Your task to perform on an android device: turn off javascript in the chrome app Image 0: 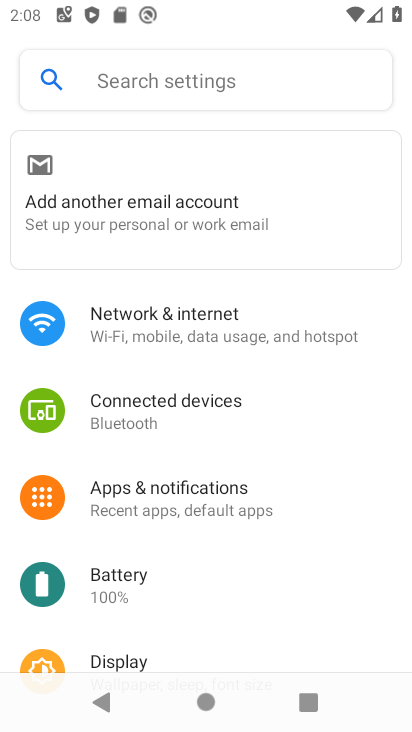
Step 0: press home button
Your task to perform on an android device: turn off javascript in the chrome app Image 1: 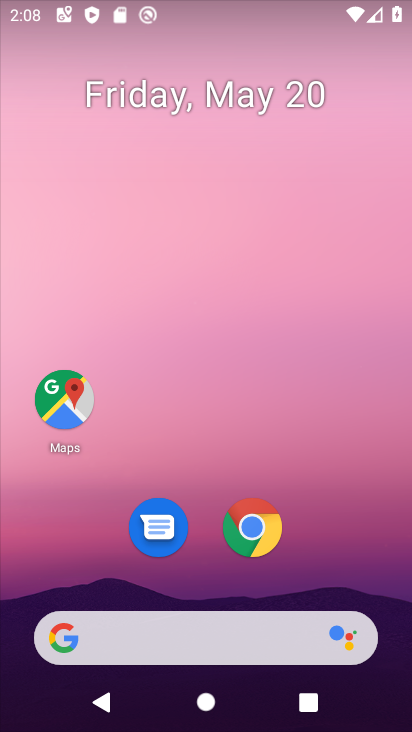
Step 1: click (264, 523)
Your task to perform on an android device: turn off javascript in the chrome app Image 2: 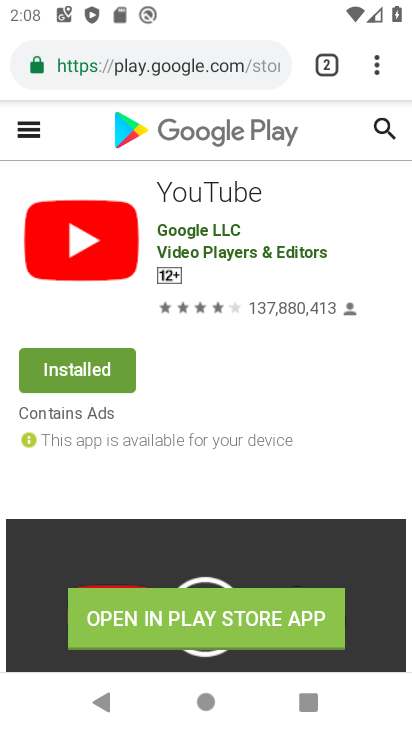
Step 2: click (380, 71)
Your task to perform on an android device: turn off javascript in the chrome app Image 3: 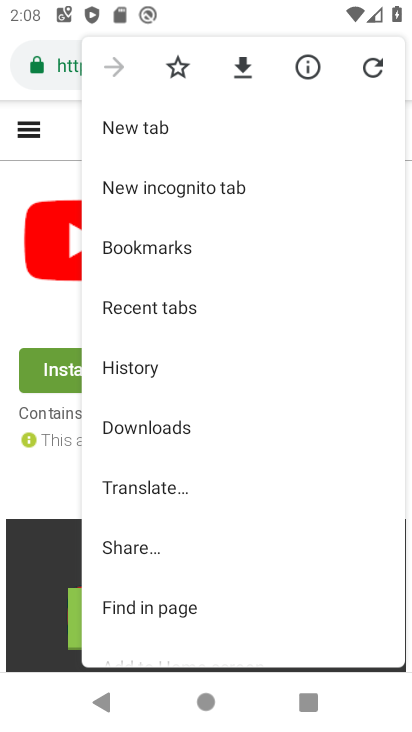
Step 3: drag from (246, 604) to (355, 151)
Your task to perform on an android device: turn off javascript in the chrome app Image 4: 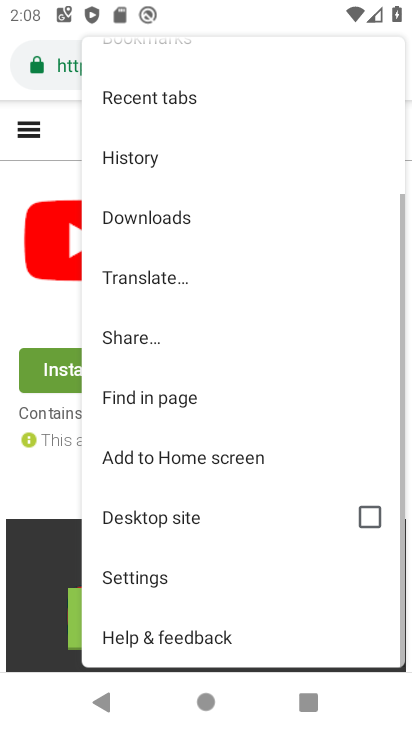
Step 4: click (170, 587)
Your task to perform on an android device: turn off javascript in the chrome app Image 5: 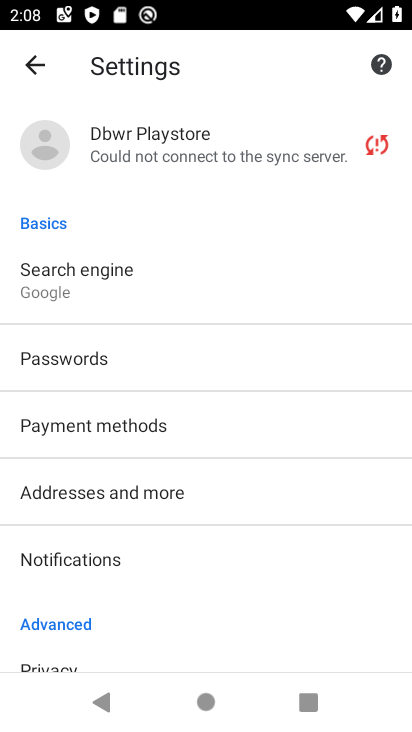
Step 5: drag from (151, 591) to (169, 85)
Your task to perform on an android device: turn off javascript in the chrome app Image 6: 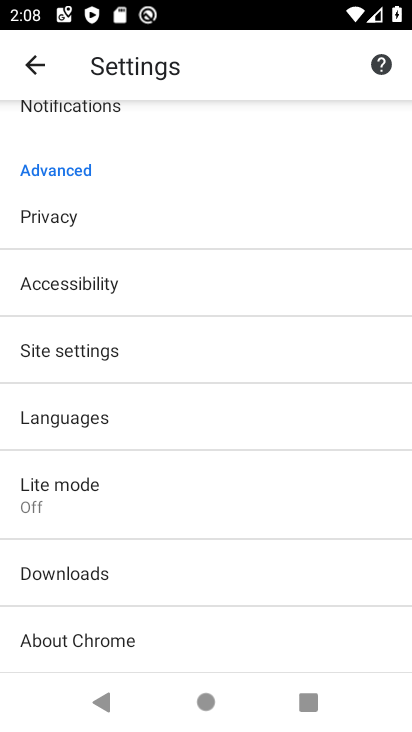
Step 6: click (117, 355)
Your task to perform on an android device: turn off javascript in the chrome app Image 7: 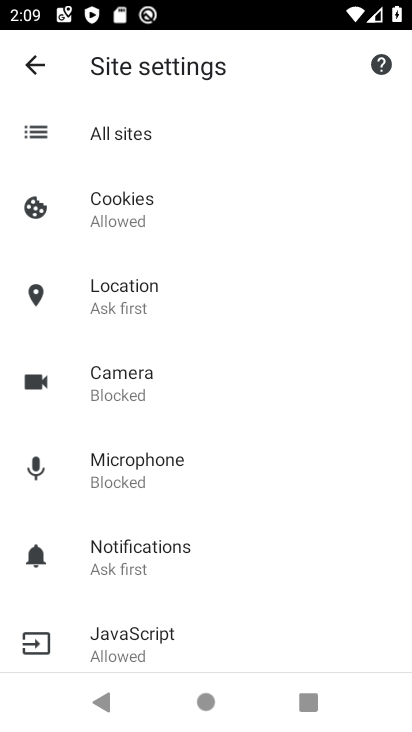
Step 7: click (168, 631)
Your task to perform on an android device: turn off javascript in the chrome app Image 8: 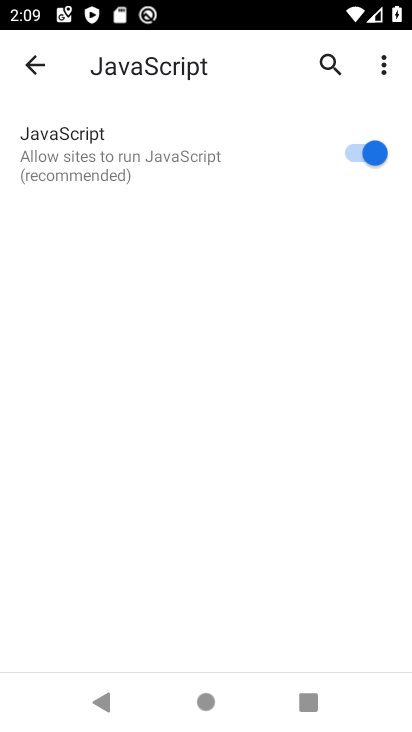
Step 8: click (375, 147)
Your task to perform on an android device: turn off javascript in the chrome app Image 9: 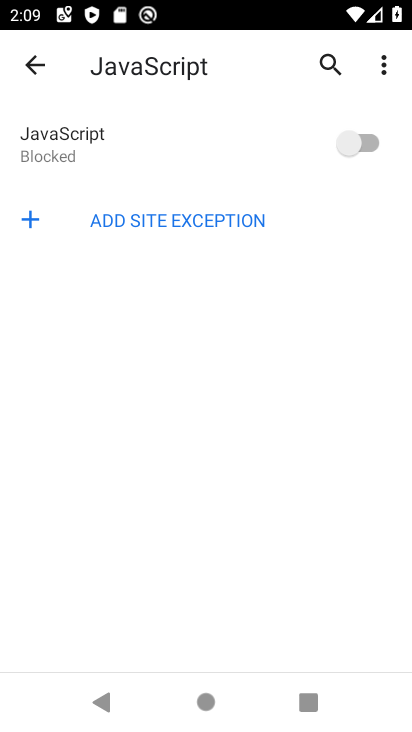
Step 9: task complete